Your task to perform on an android device: set default search engine in the chrome app Image 0: 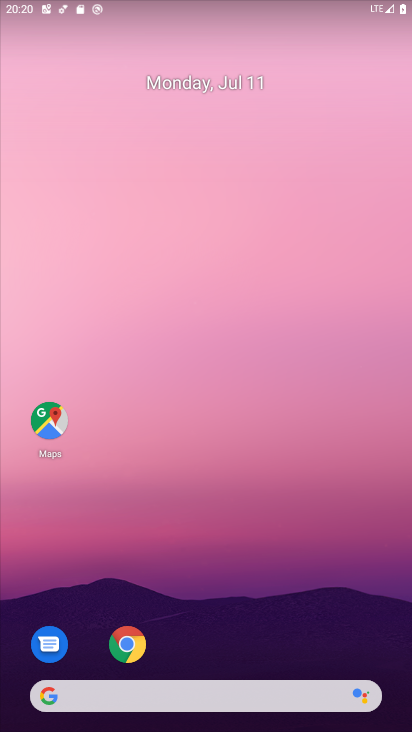
Step 0: drag from (223, 664) to (186, 240)
Your task to perform on an android device: set default search engine in the chrome app Image 1: 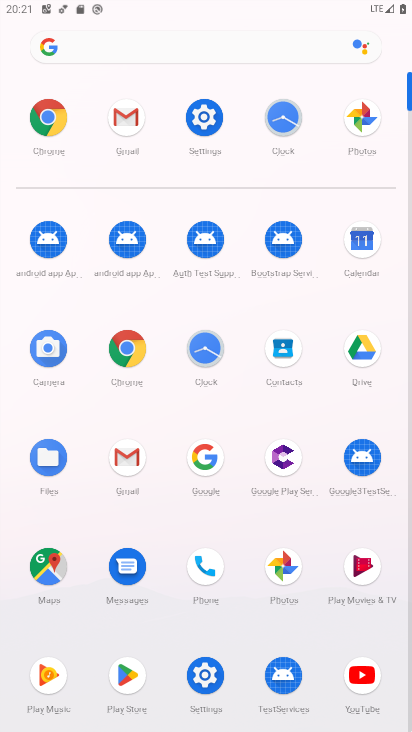
Step 1: click (45, 106)
Your task to perform on an android device: set default search engine in the chrome app Image 2: 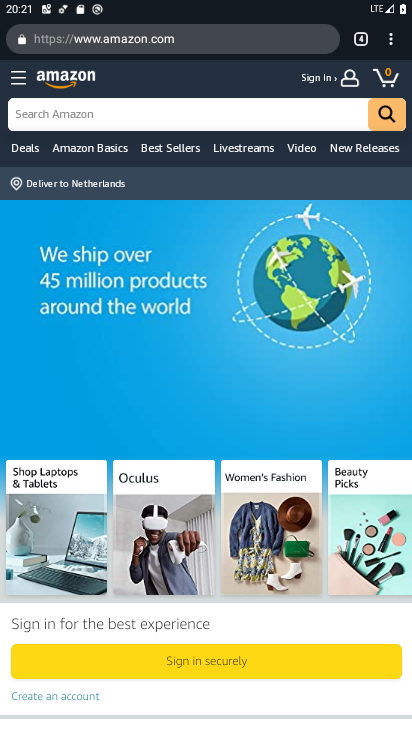
Step 2: click (400, 34)
Your task to perform on an android device: set default search engine in the chrome app Image 3: 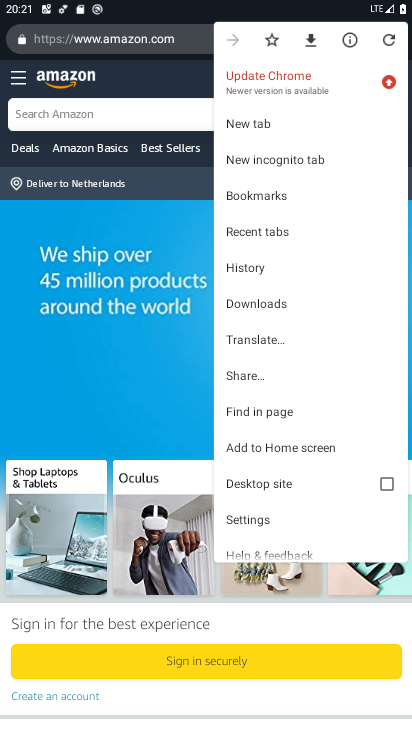
Step 3: click (265, 514)
Your task to perform on an android device: set default search engine in the chrome app Image 4: 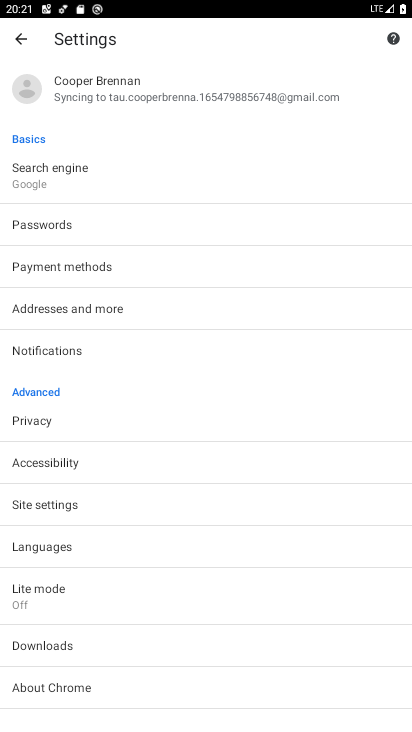
Step 4: click (65, 175)
Your task to perform on an android device: set default search engine in the chrome app Image 5: 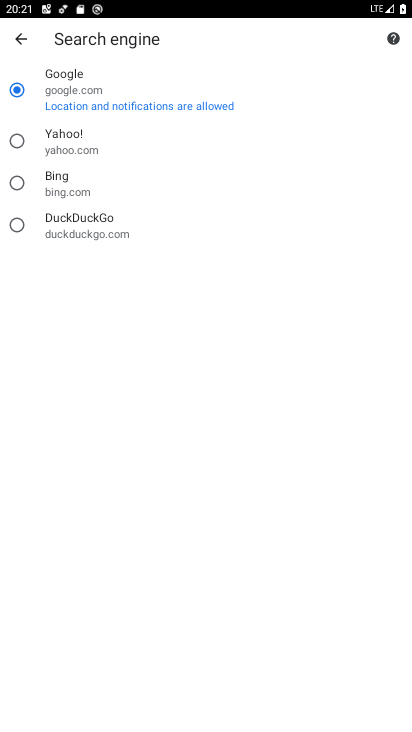
Step 5: click (62, 172)
Your task to perform on an android device: set default search engine in the chrome app Image 6: 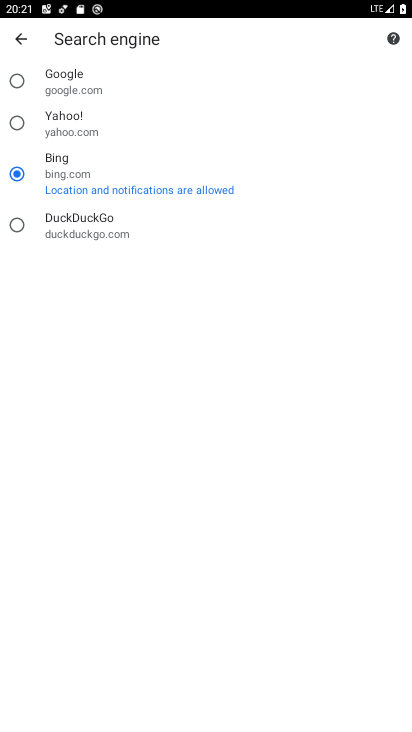
Step 6: task complete